Your task to perform on an android device: Is it going to rain today? Image 0: 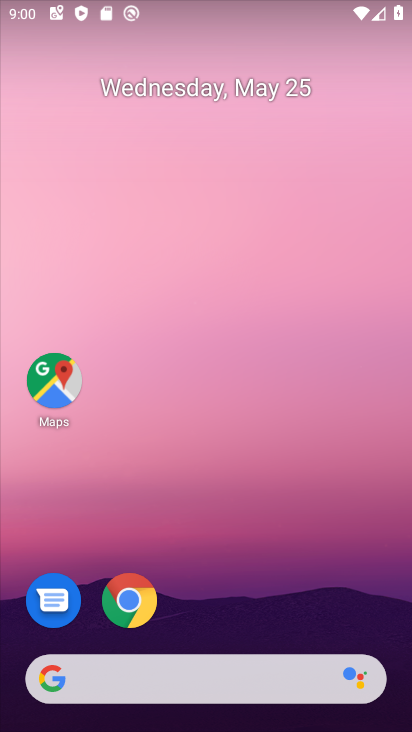
Step 0: drag from (239, 593) to (120, 2)
Your task to perform on an android device: Is it going to rain today? Image 1: 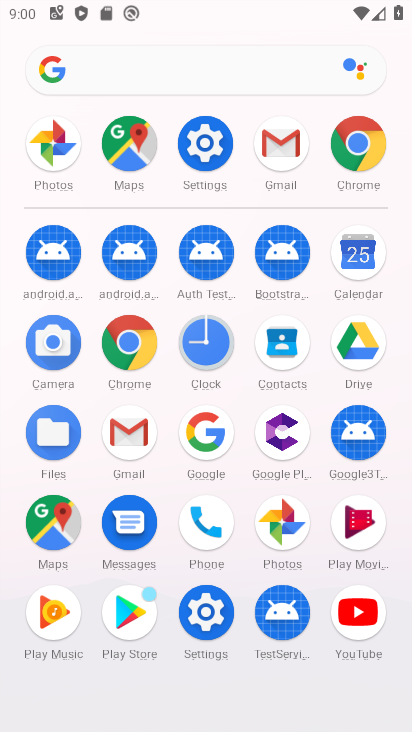
Step 1: click (125, 338)
Your task to perform on an android device: Is it going to rain today? Image 2: 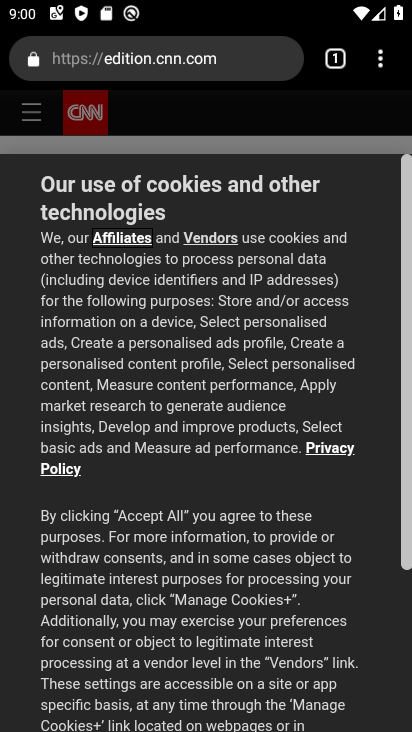
Step 2: click (143, 53)
Your task to perform on an android device: Is it going to rain today? Image 3: 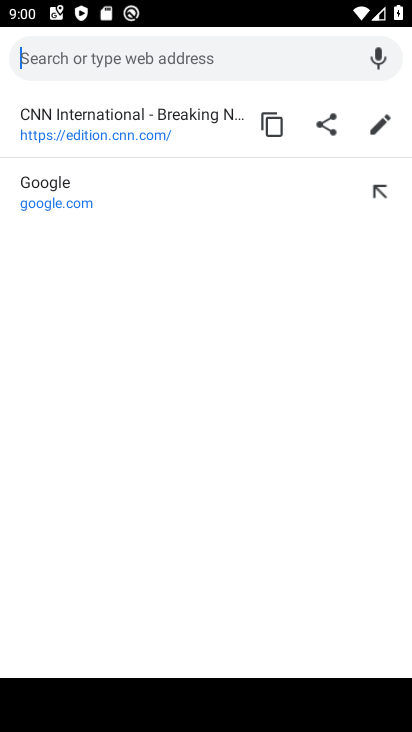
Step 3: type "Is it going to rain today?"
Your task to perform on an android device: Is it going to rain today? Image 4: 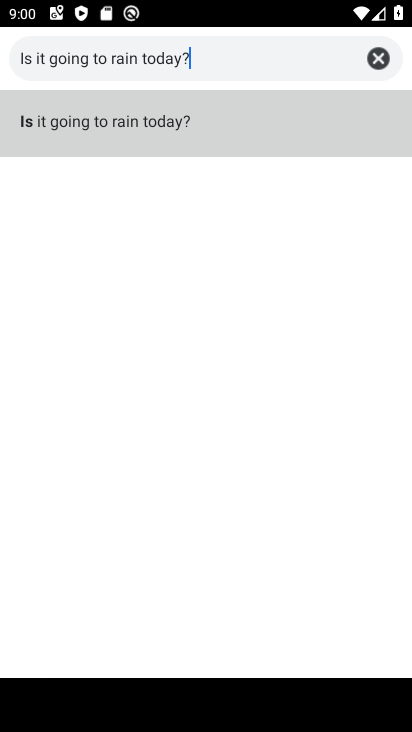
Step 4: type ""
Your task to perform on an android device: Is it going to rain today? Image 5: 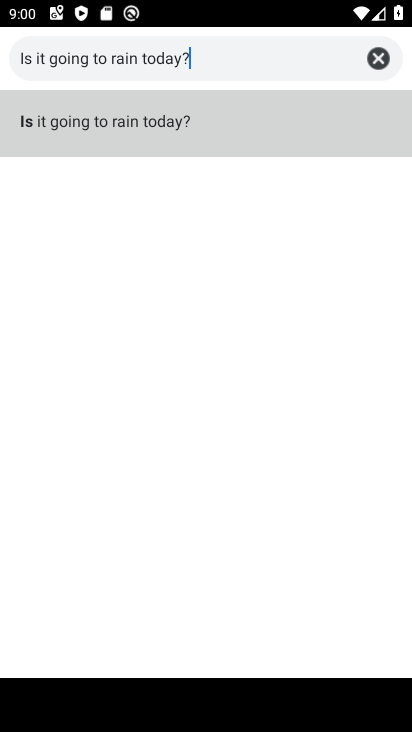
Step 5: click (145, 124)
Your task to perform on an android device: Is it going to rain today? Image 6: 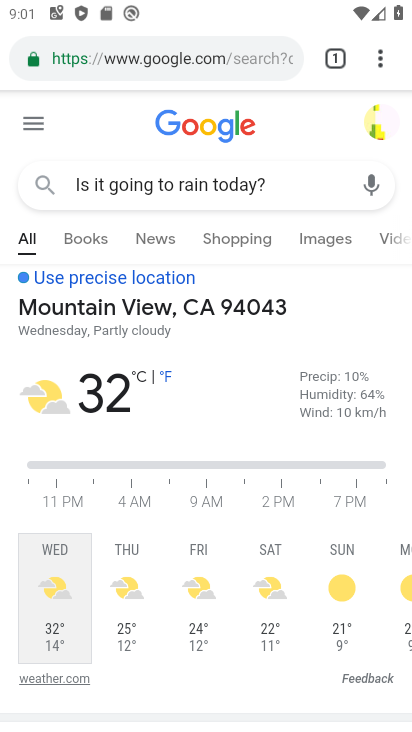
Step 6: task complete